Your task to perform on an android device: Empty the shopping cart on newegg. Search for "asus zenbook" on newegg, select the first entry, add it to the cart, then select checkout. Image 0: 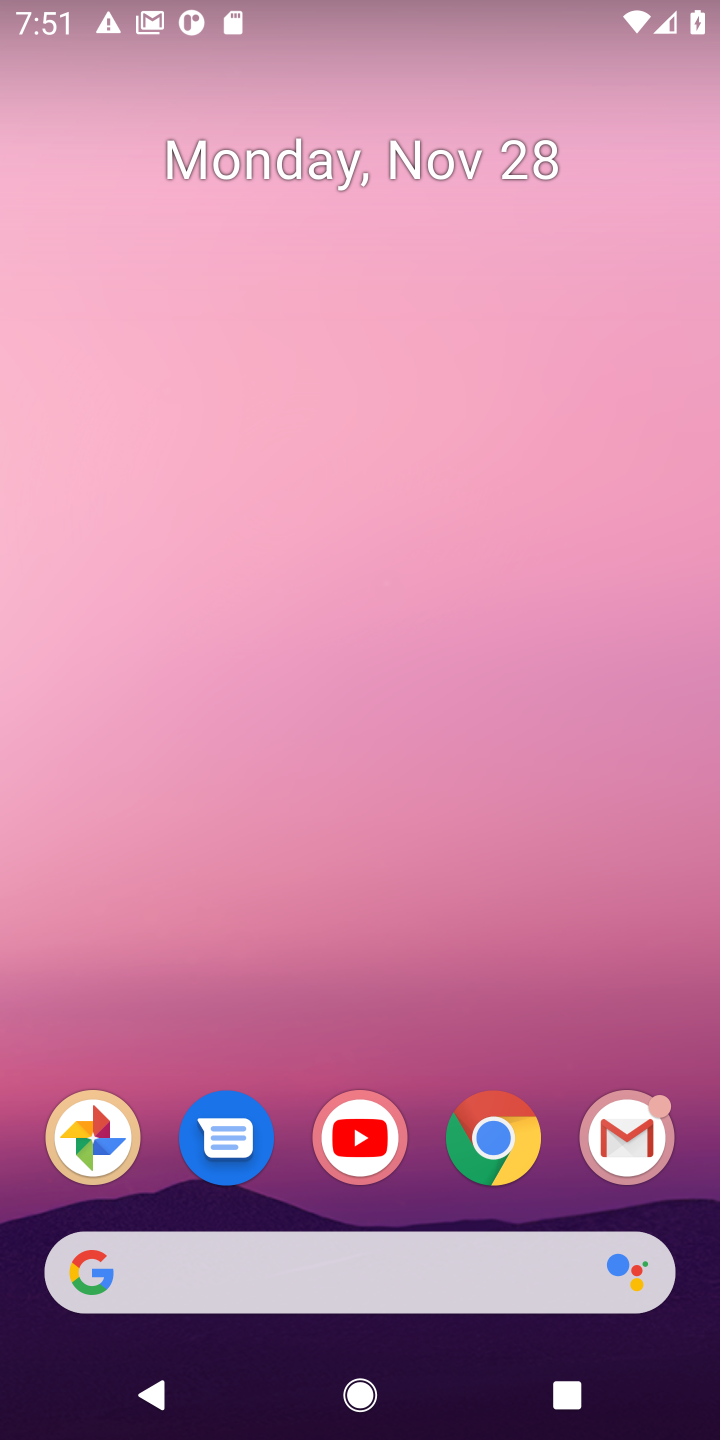
Step 0: click (498, 1135)
Your task to perform on an android device: Empty the shopping cart on newegg. Search for "asus zenbook" on newegg, select the first entry, add it to the cart, then select checkout. Image 1: 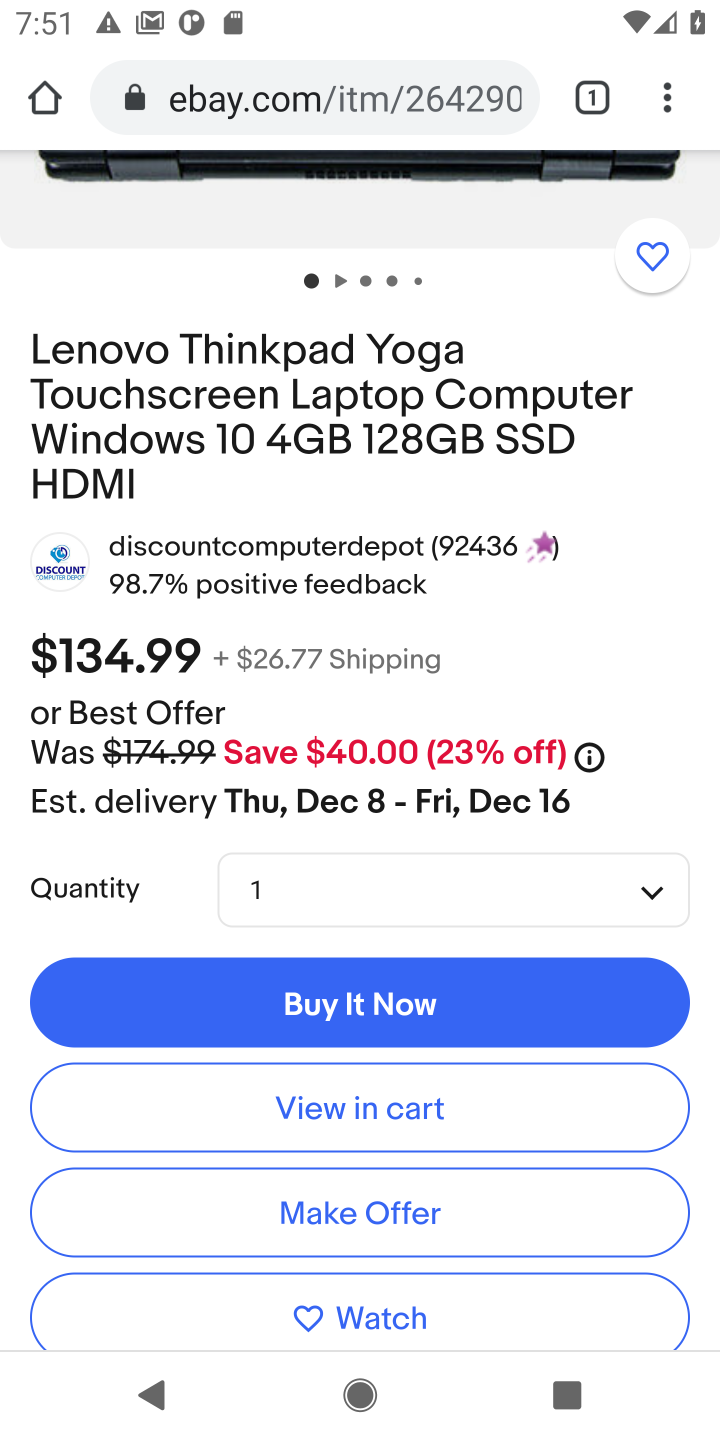
Step 1: click (303, 118)
Your task to perform on an android device: Empty the shopping cart on newegg. Search for "asus zenbook" on newegg, select the first entry, add it to the cart, then select checkout. Image 2: 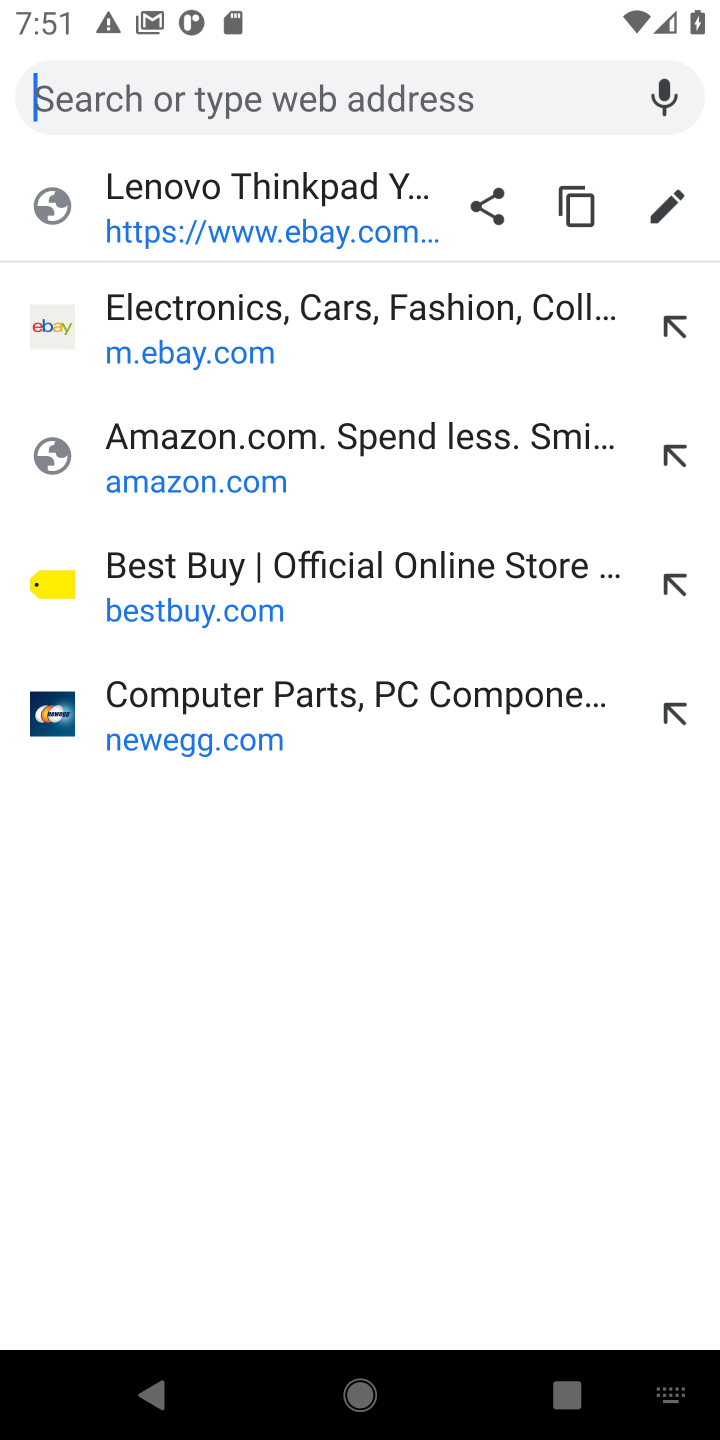
Step 2: click (164, 706)
Your task to perform on an android device: Empty the shopping cart on newegg. Search for "asus zenbook" on newegg, select the first entry, add it to the cart, then select checkout. Image 3: 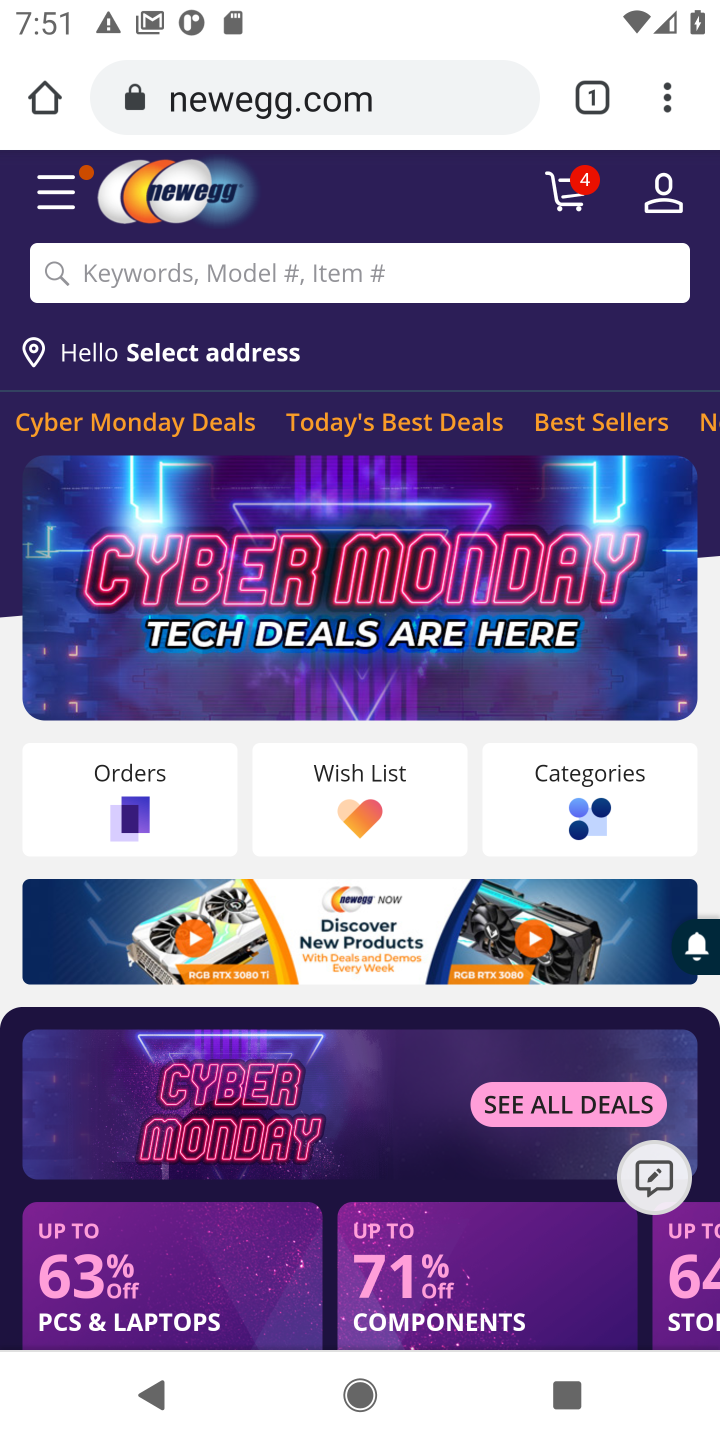
Step 3: click (566, 202)
Your task to perform on an android device: Empty the shopping cart on newegg. Search for "asus zenbook" on newegg, select the first entry, add it to the cart, then select checkout. Image 4: 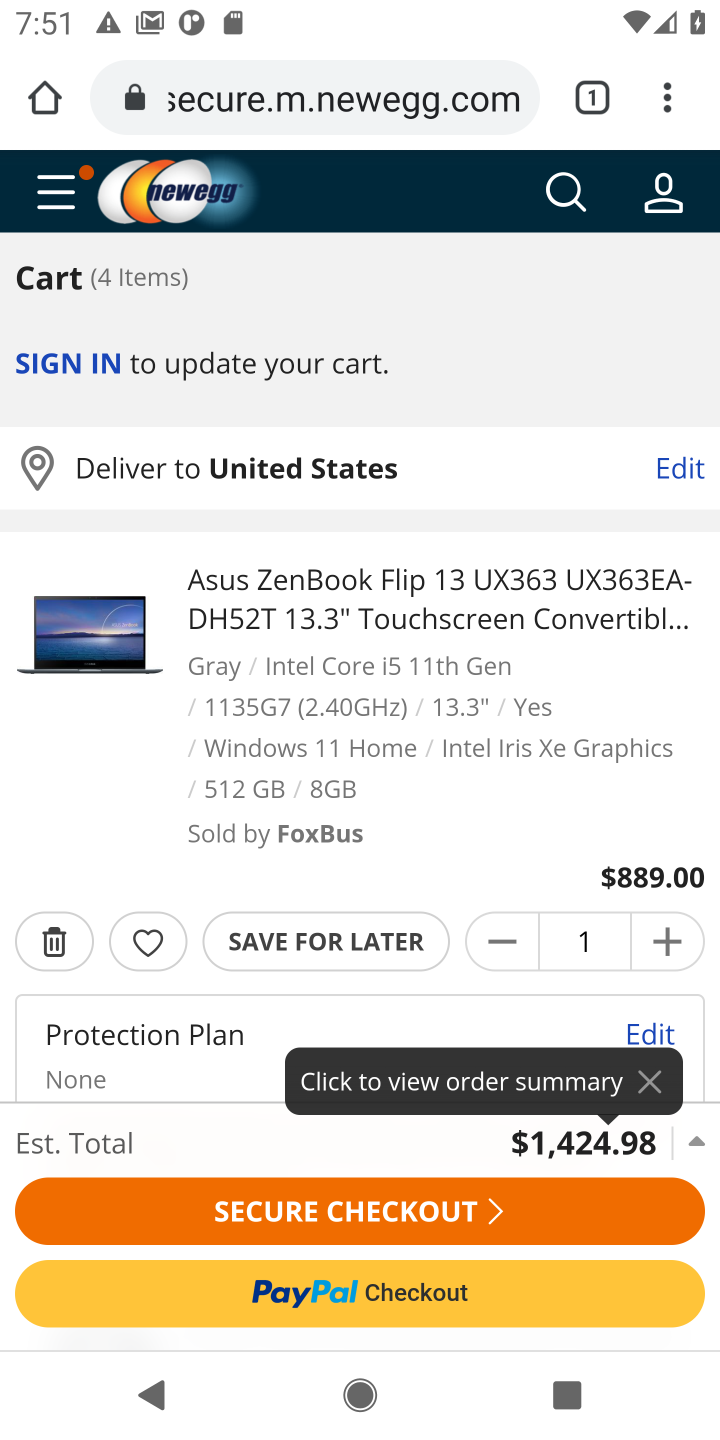
Step 4: click (52, 933)
Your task to perform on an android device: Empty the shopping cart on newegg. Search for "asus zenbook" on newegg, select the first entry, add it to the cart, then select checkout. Image 5: 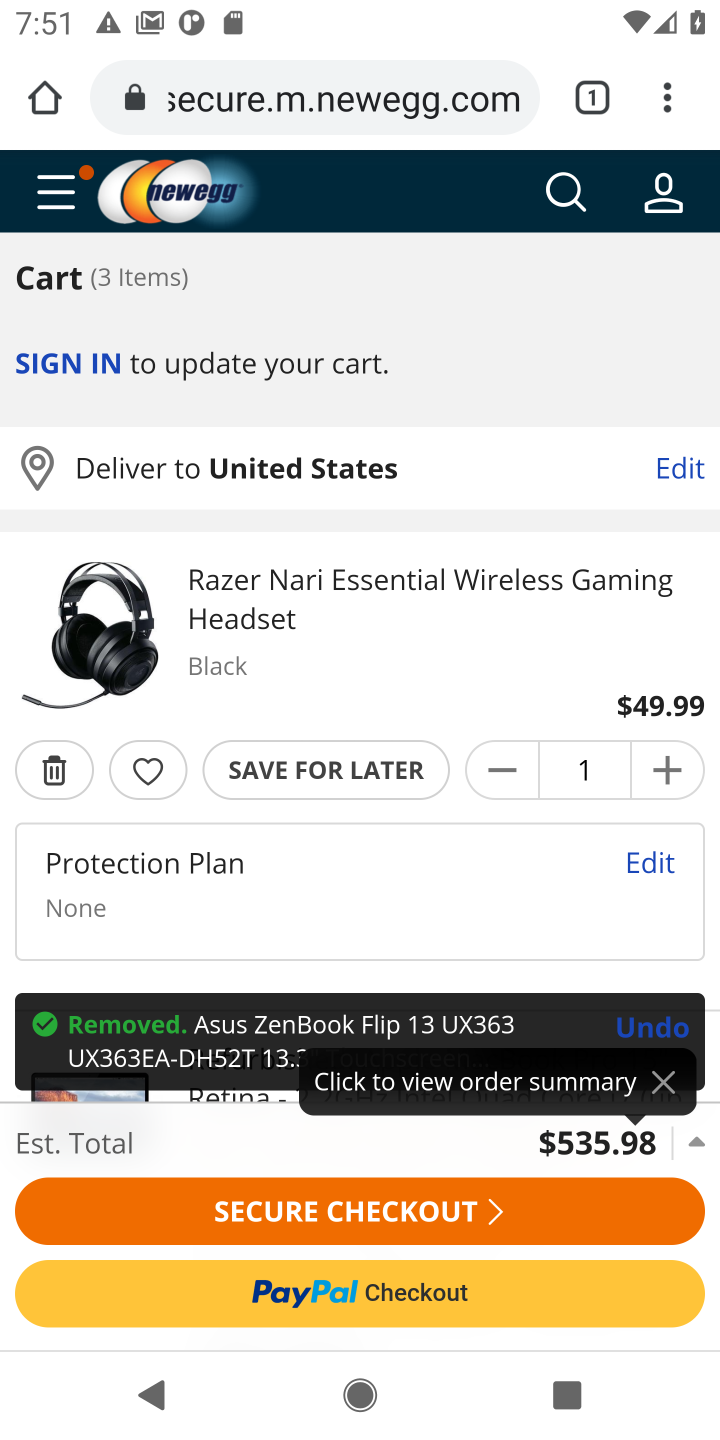
Step 5: click (41, 767)
Your task to perform on an android device: Empty the shopping cart on newegg. Search for "asus zenbook" on newegg, select the first entry, add it to the cart, then select checkout. Image 6: 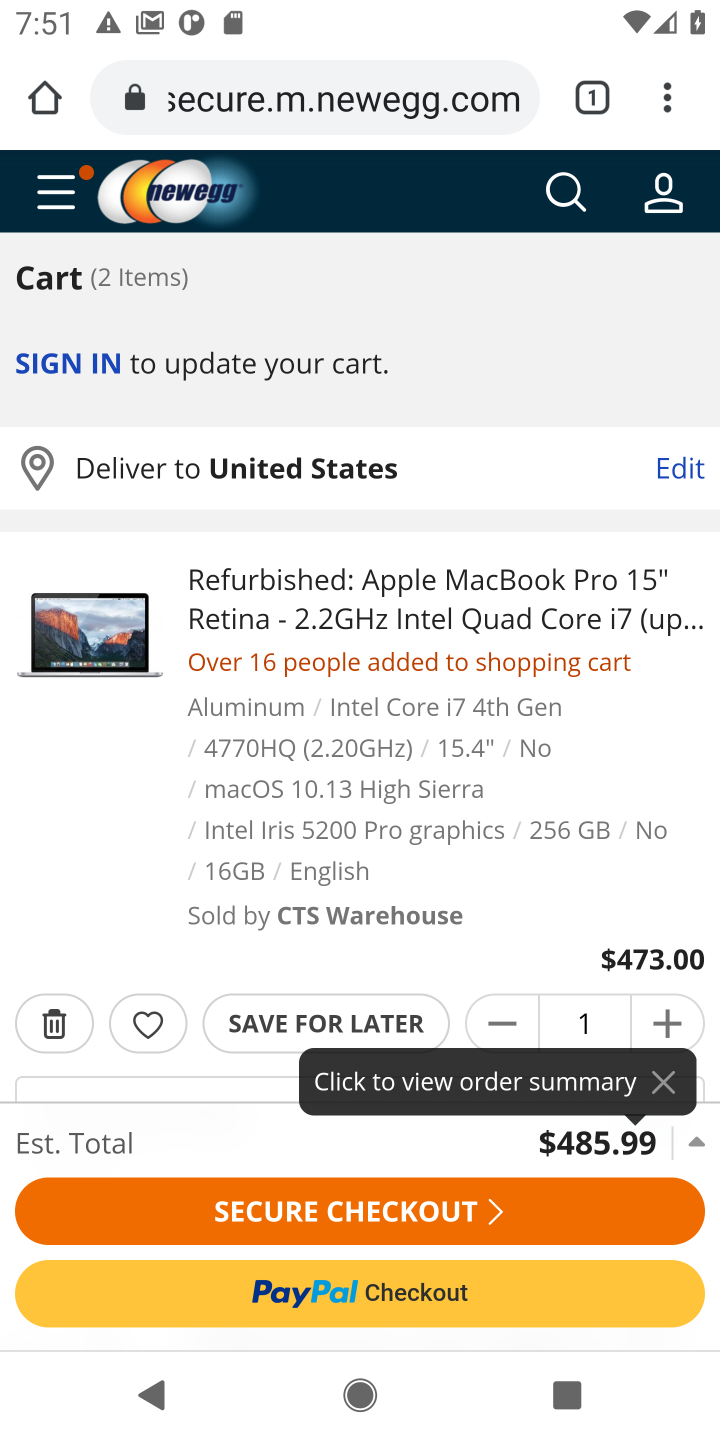
Step 6: drag from (71, 767) to (77, 530)
Your task to perform on an android device: Empty the shopping cart on newegg. Search for "asus zenbook" on newegg, select the first entry, add it to the cart, then select checkout. Image 7: 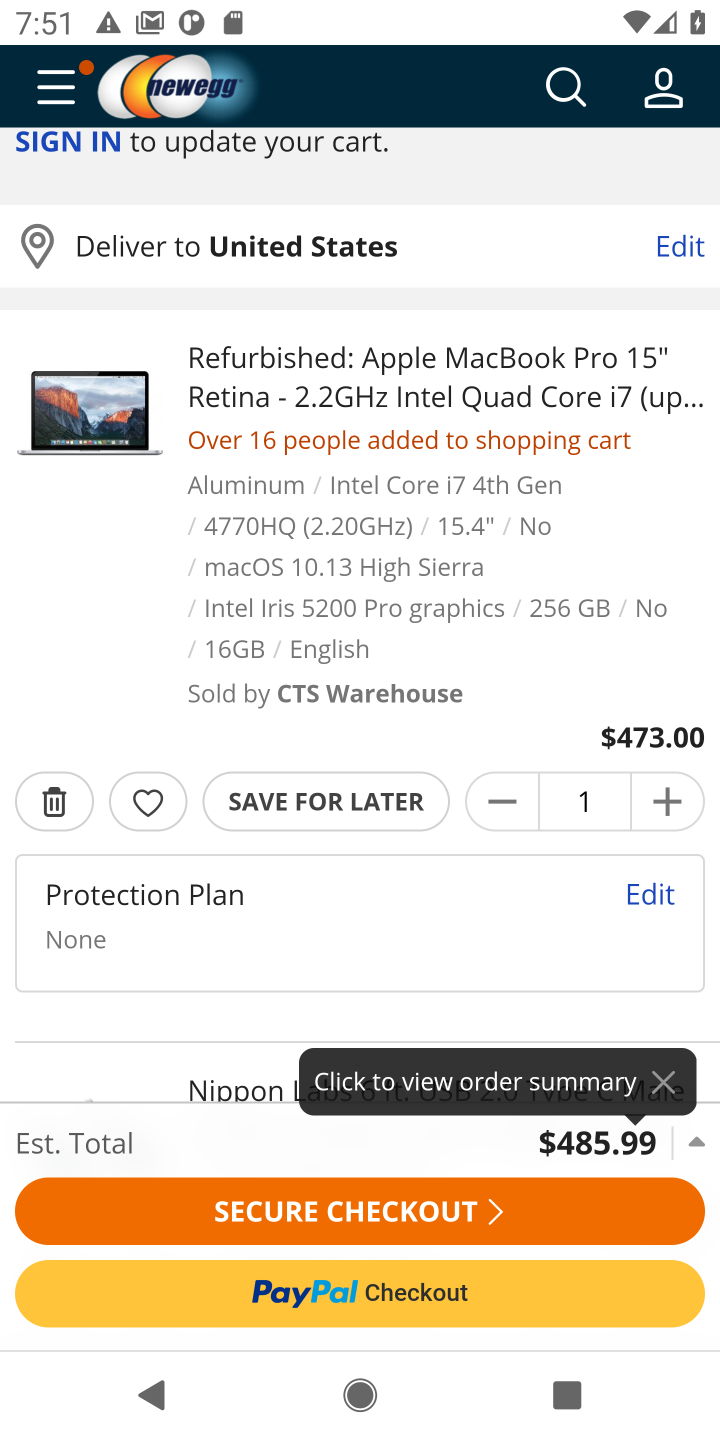
Step 7: click (42, 807)
Your task to perform on an android device: Empty the shopping cart on newegg. Search for "asus zenbook" on newegg, select the first entry, add it to the cart, then select checkout. Image 8: 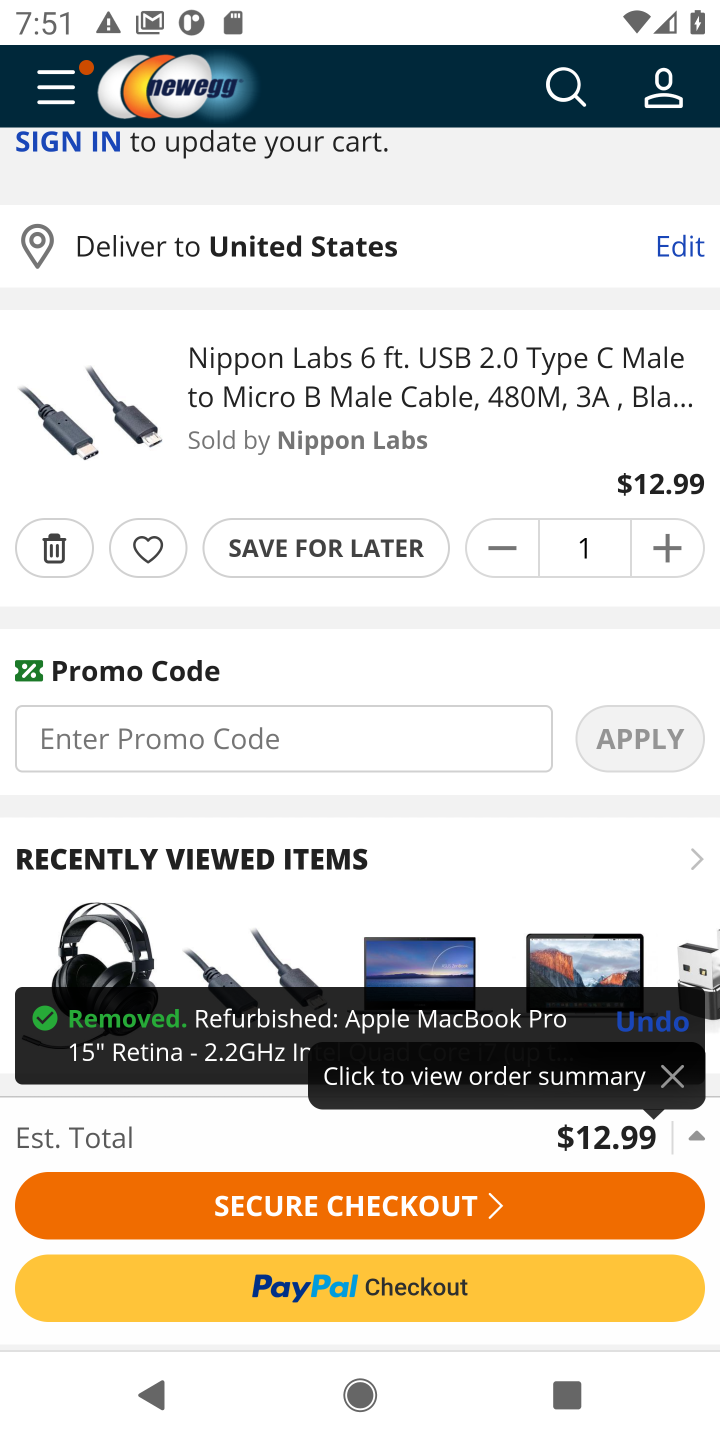
Step 8: click (42, 548)
Your task to perform on an android device: Empty the shopping cart on newegg. Search for "asus zenbook" on newegg, select the first entry, add it to the cart, then select checkout. Image 9: 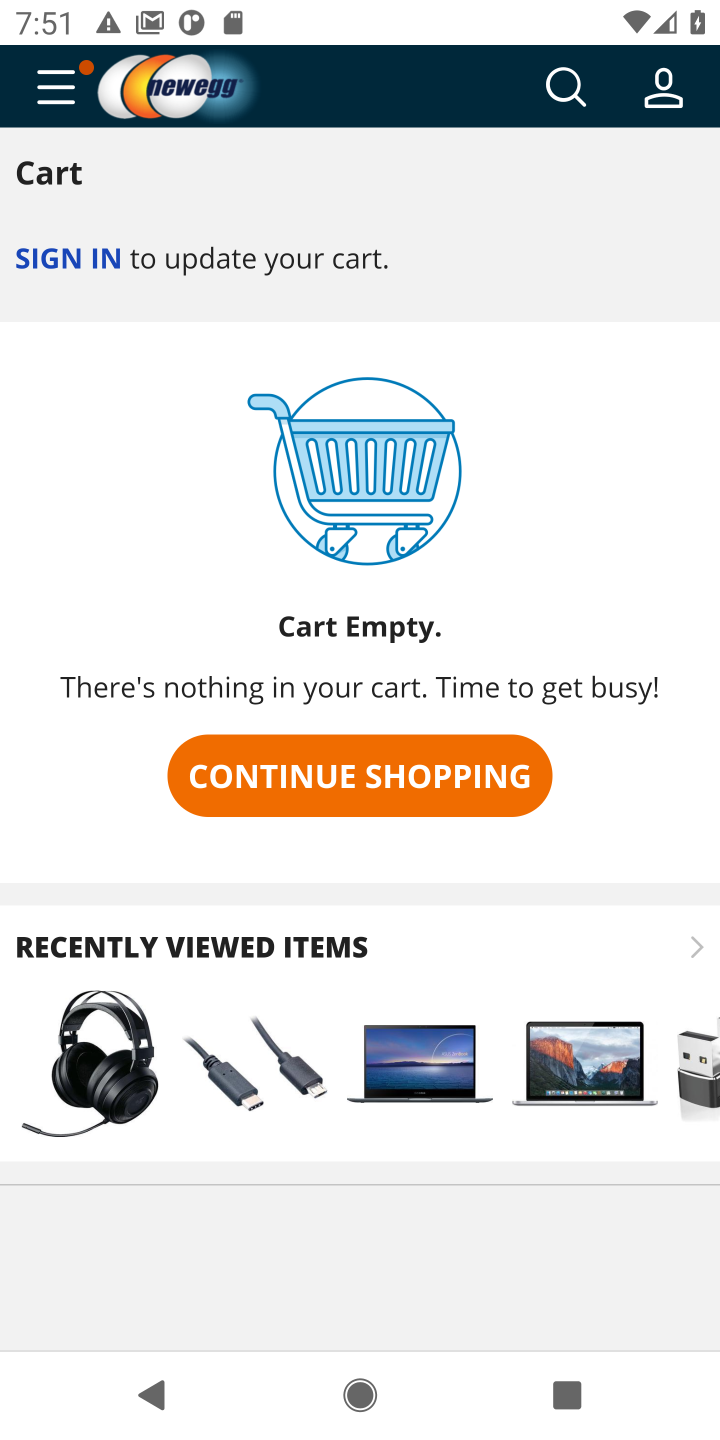
Step 9: click (572, 75)
Your task to perform on an android device: Empty the shopping cart on newegg. Search for "asus zenbook" on newegg, select the first entry, add it to the cart, then select checkout. Image 10: 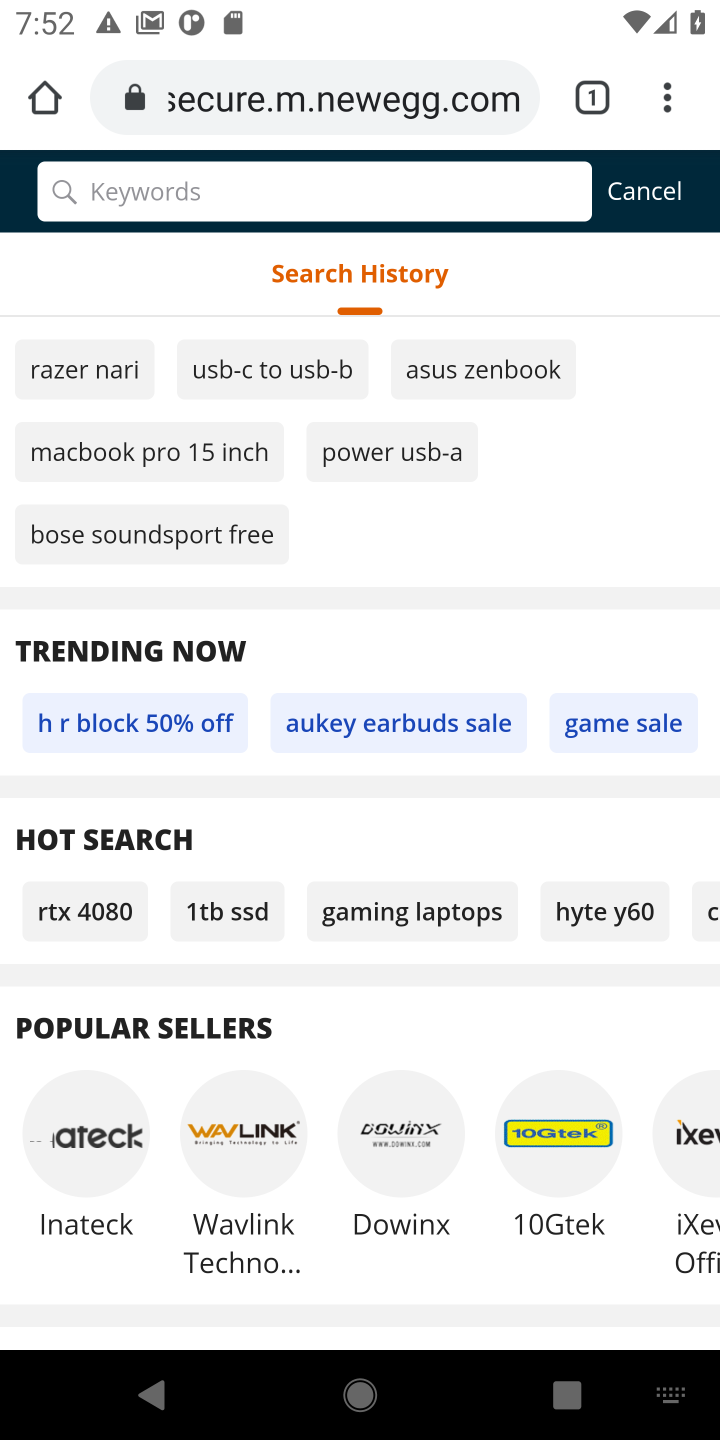
Step 10: type "asus zenbook"
Your task to perform on an android device: Empty the shopping cart on newegg. Search for "asus zenbook" on newegg, select the first entry, add it to the cart, then select checkout. Image 11: 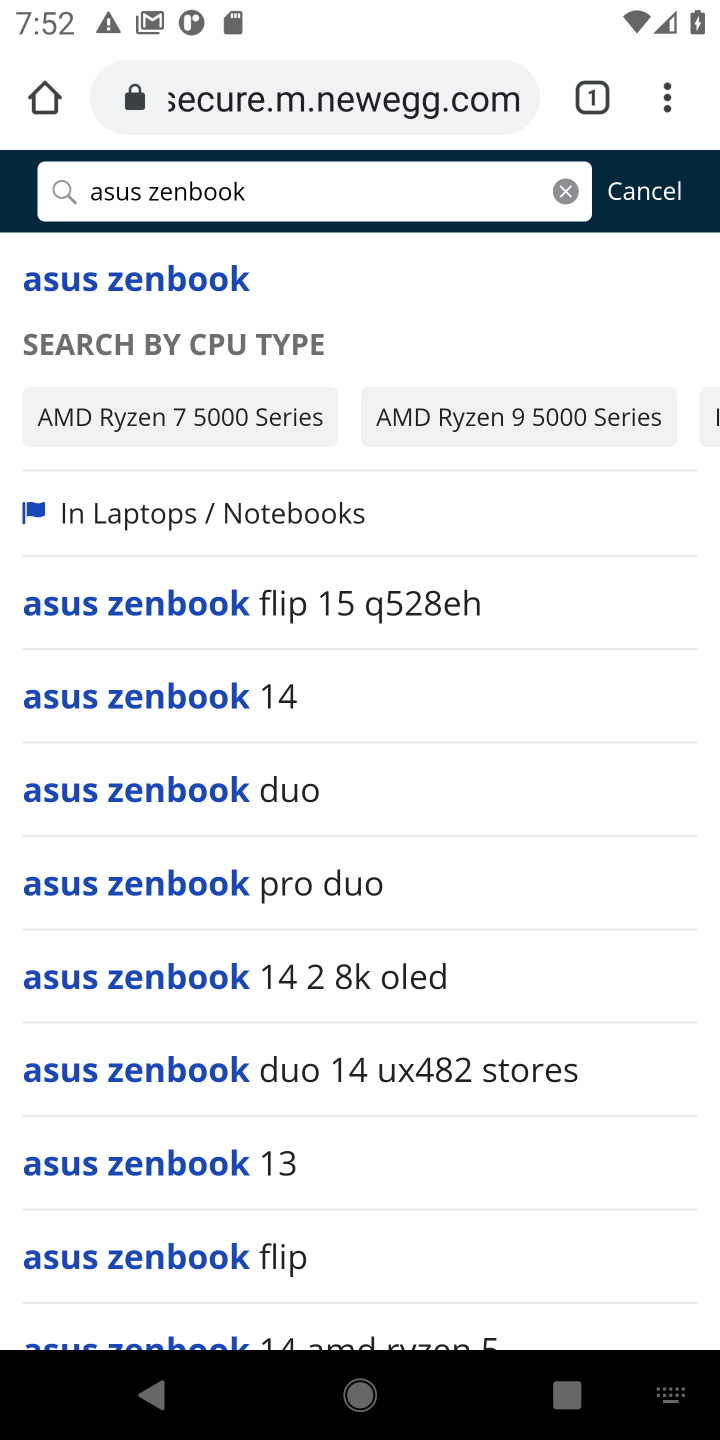
Step 11: click (153, 271)
Your task to perform on an android device: Empty the shopping cart on newegg. Search for "asus zenbook" on newegg, select the first entry, add it to the cart, then select checkout. Image 12: 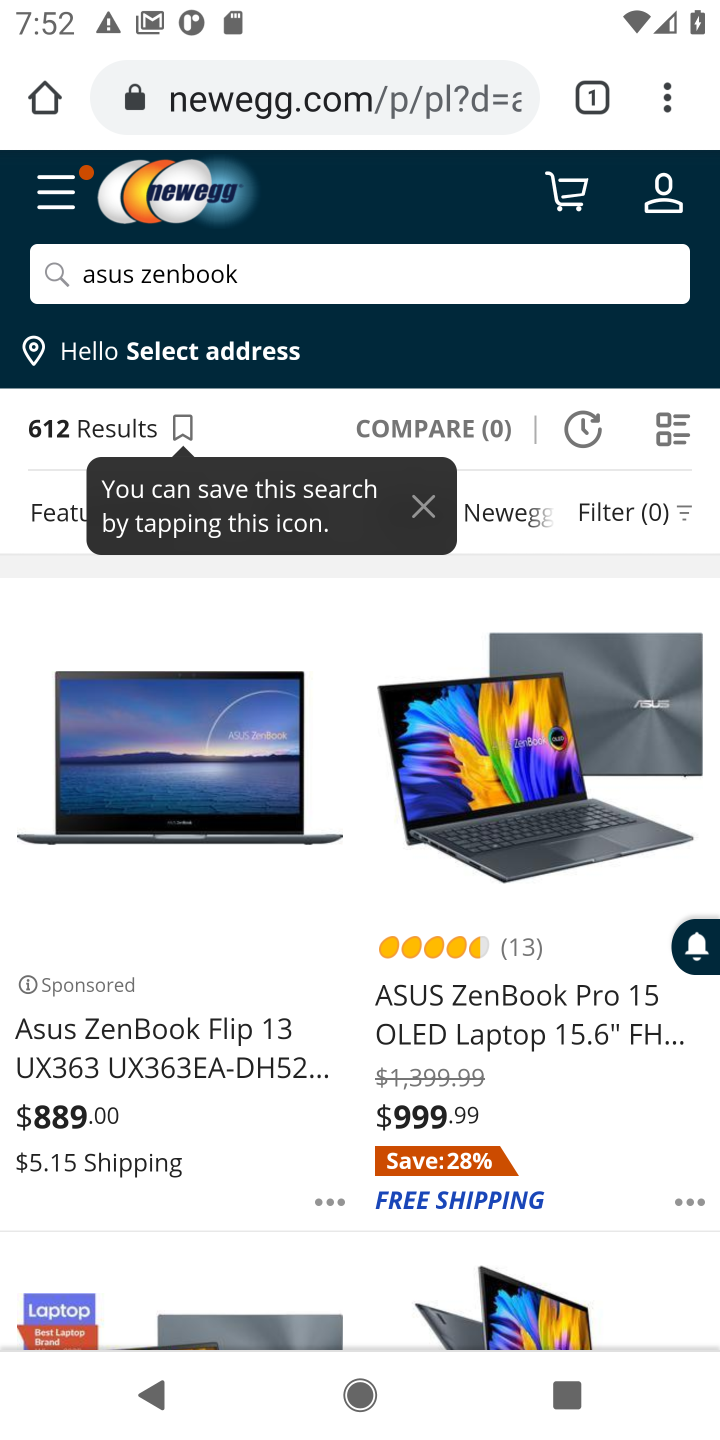
Step 12: click (112, 1047)
Your task to perform on an android device: Empty the shopping cart on newegg. Search for "asus zenbook" on newegg, select the first entry, add it to the cart, then select checkout. Image 13: 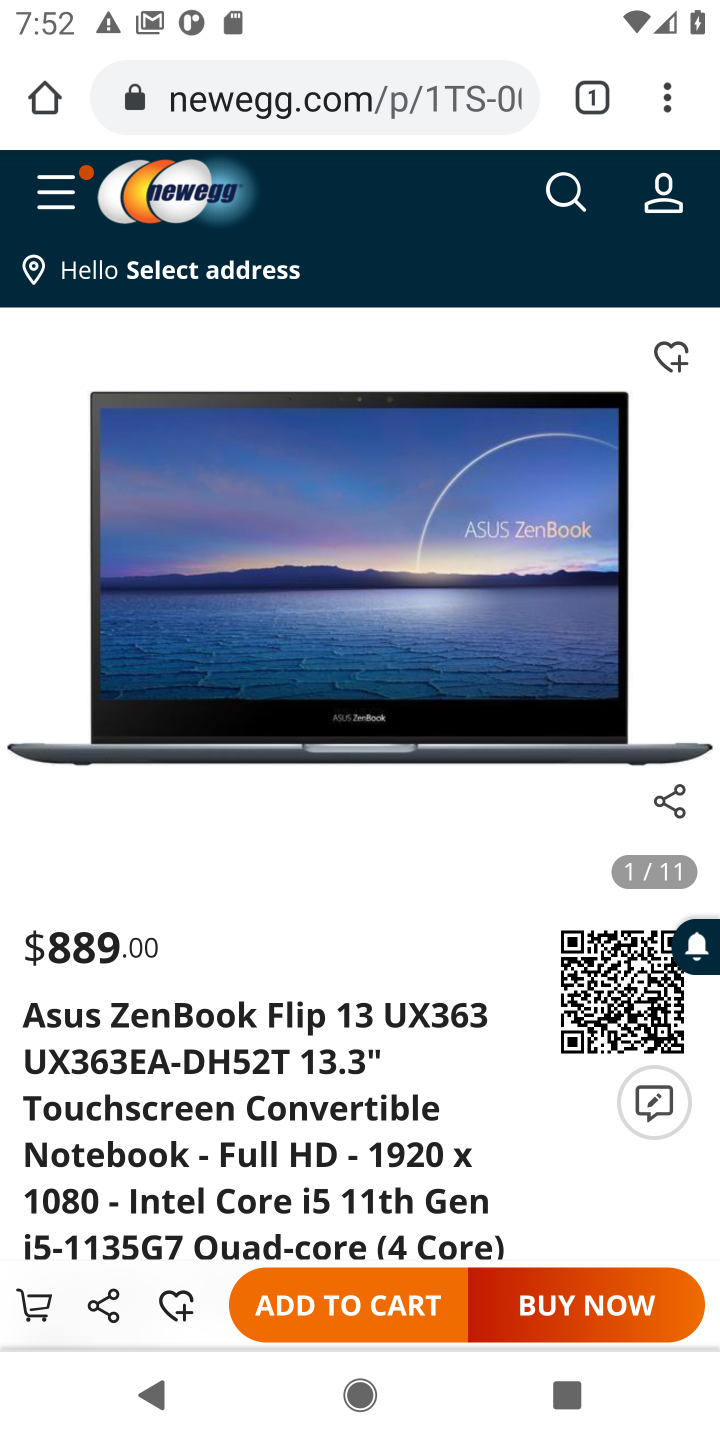
Step 13: click (345, 1322)
Your task to perform on an android device: Empty the shopping cart on newegg. Search for "asus zenbook" on newegg, select the first entry, add it to the cart, then select checkout. Image 14: 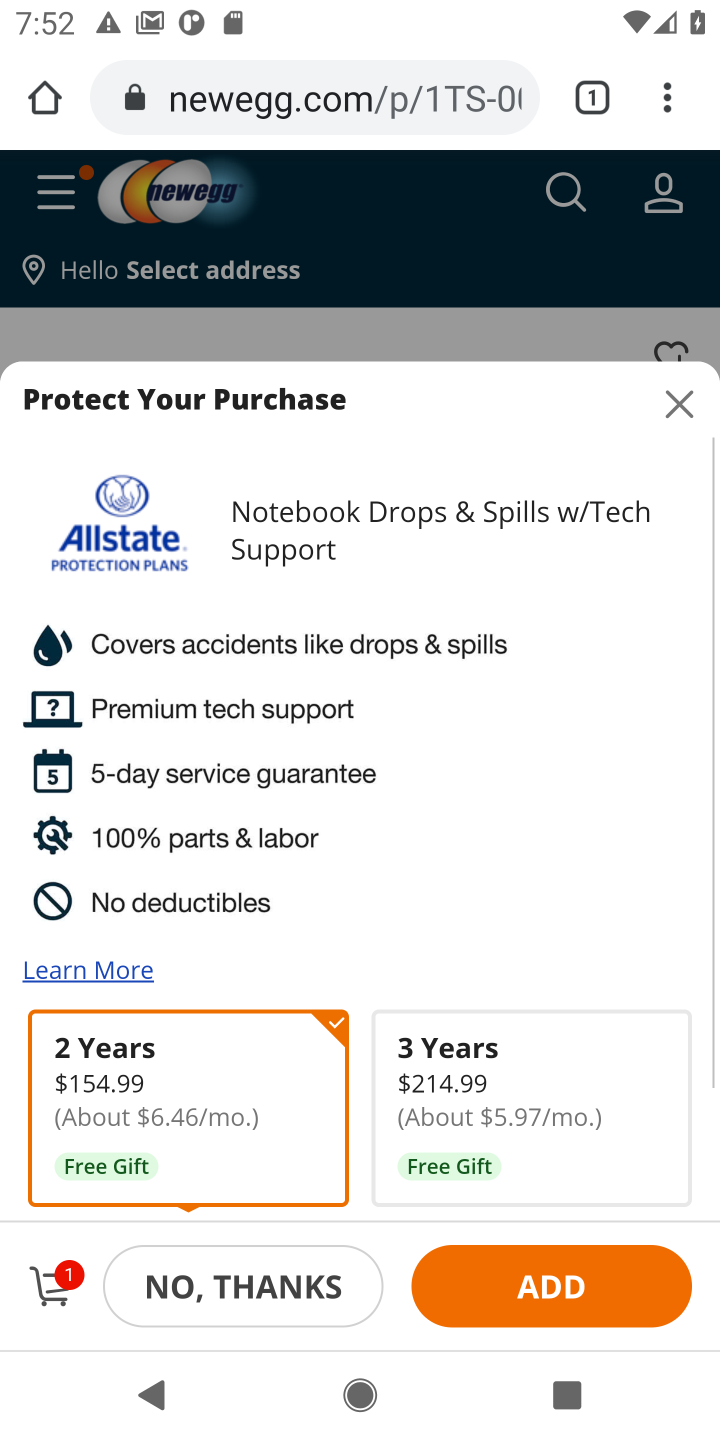
Step 14: click (44, 1304)
Your task to perform on an android device: Empty the shopping cart on newegg. Search for "asus zenbook" on newegg, select the first entry, add it to the cart, then select checkout. Image 15: 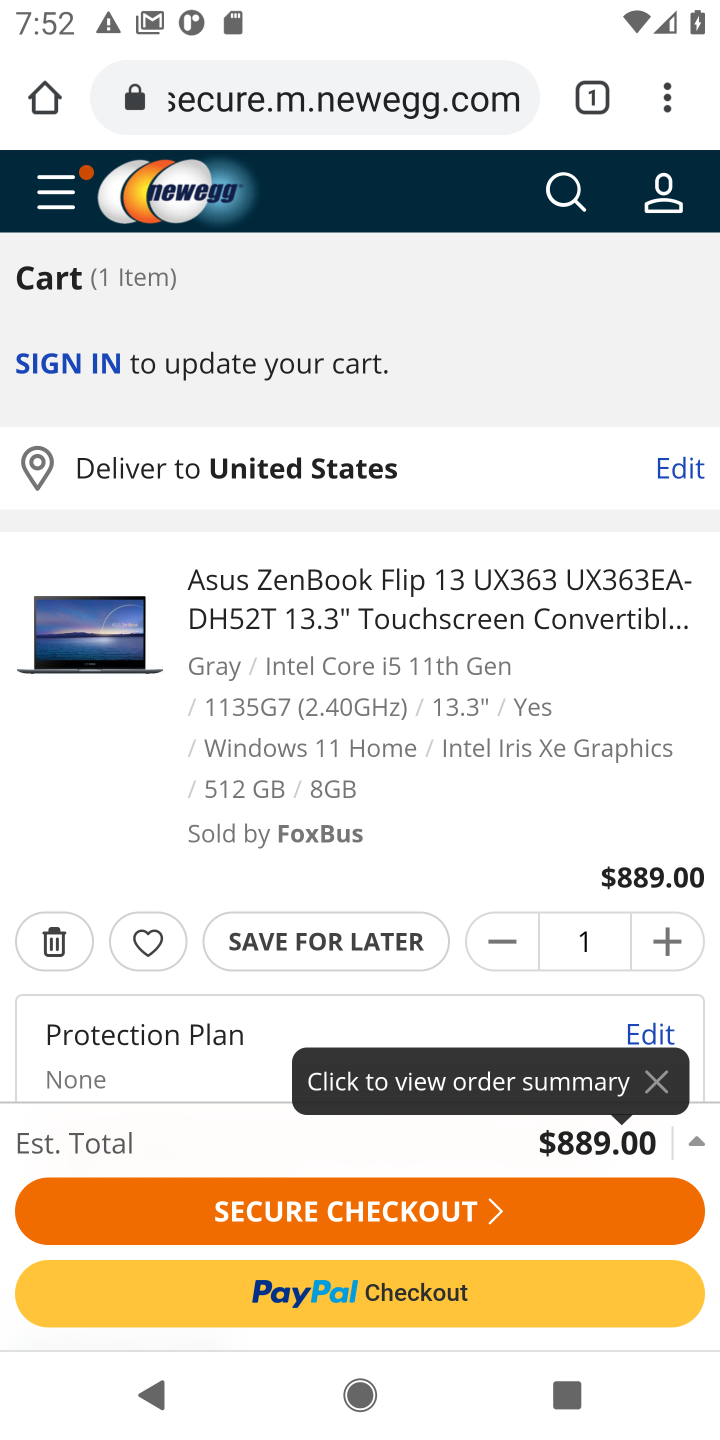
Step 15: click (289, 1211)
Your task to perform on an android device: Empty the shopping cart on newegg. Search for "asus zenbook" on newegg, select the first entry, add it to the cart, then select checkout. Image 16: 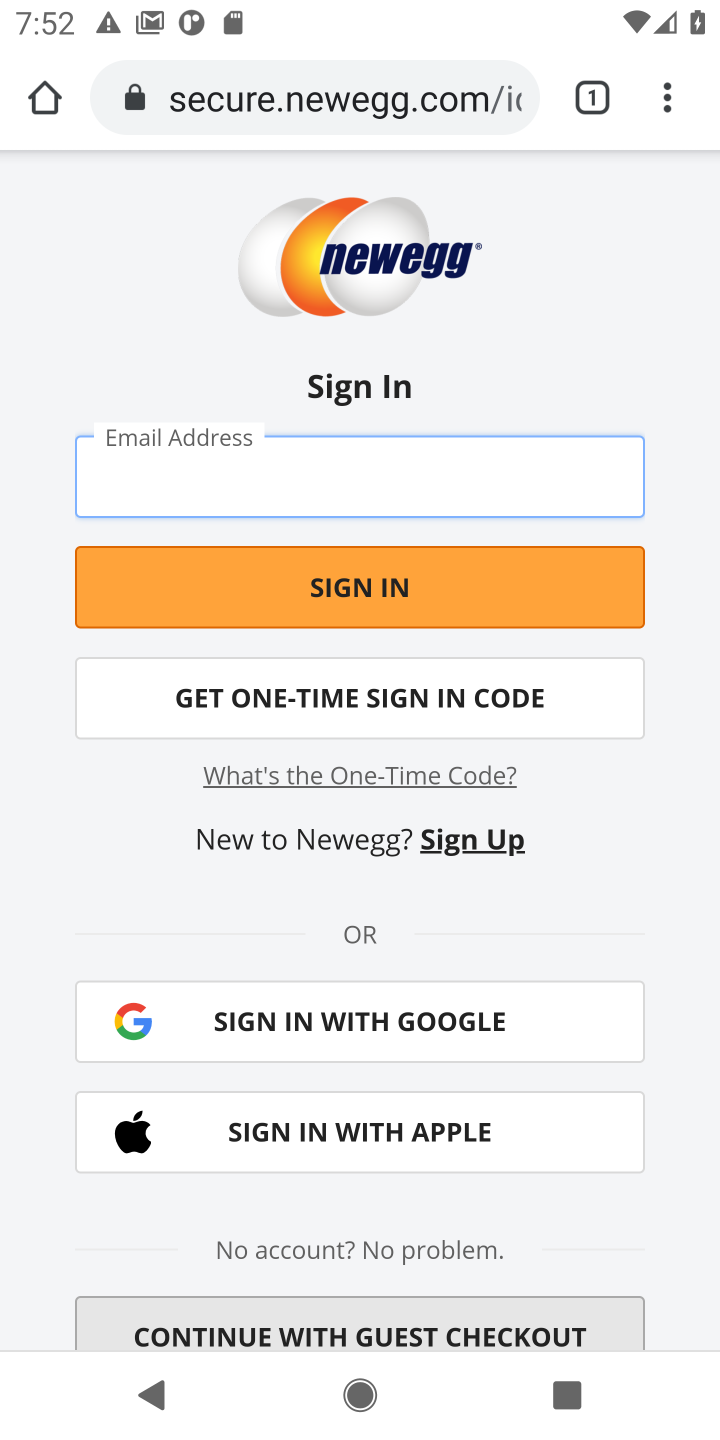
Step 16: task complete